Your task to perform on an android device: Open maps Image 0: 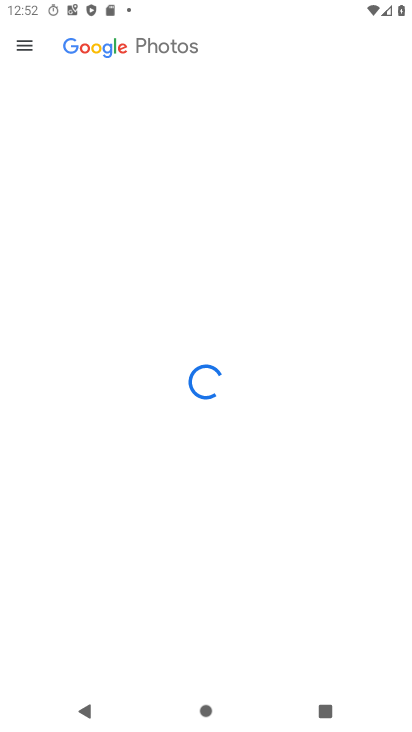
Step 0: press home button
Your task to perform on an android device: Open maps Image 1: 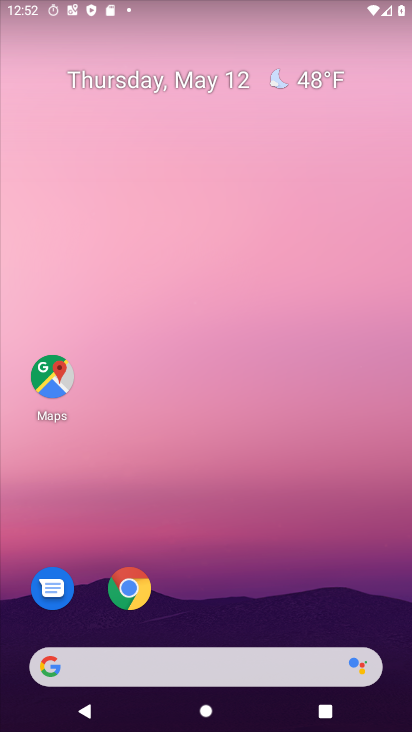
Step 1: click (63, 378)
Your task to perform on an android device: Open maps Image 2: 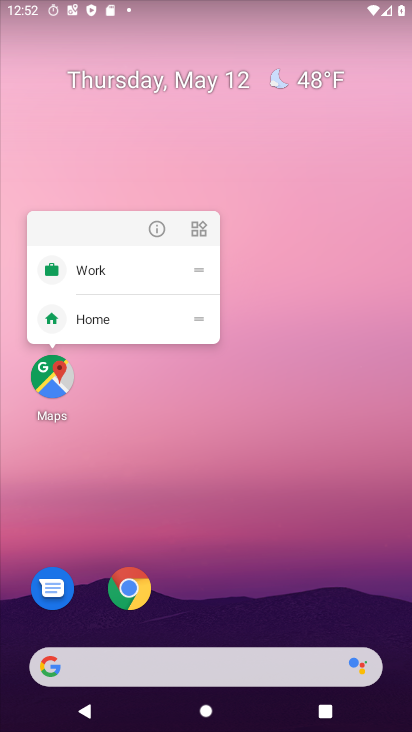
Step 2: click (53, 378)
Your task to perform on an android device: Open maps Image 3: 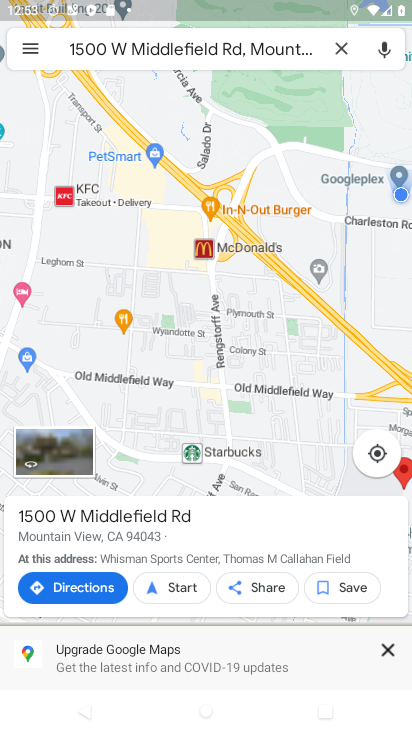
Step 3: task complete